Your task to perform on an android device: manage bookmarks in the chrome app Image 0: 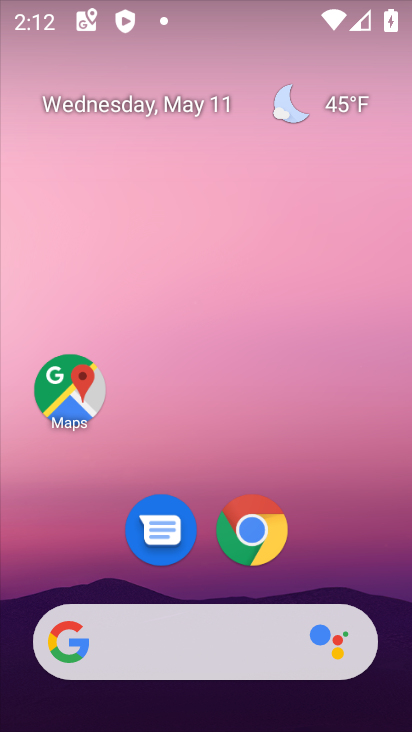
Step 0: drag from (372, 692) to (137, 111)
Your task to perform on an android device: manage bookmarks in the chrome app Image 1: 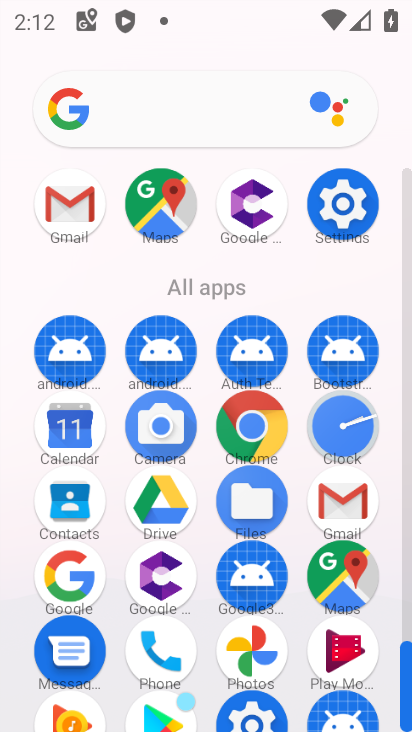
Step 1: click (322, 193)
Your task to perform on an android device: manage bookmarks in the chrome app Image 2: 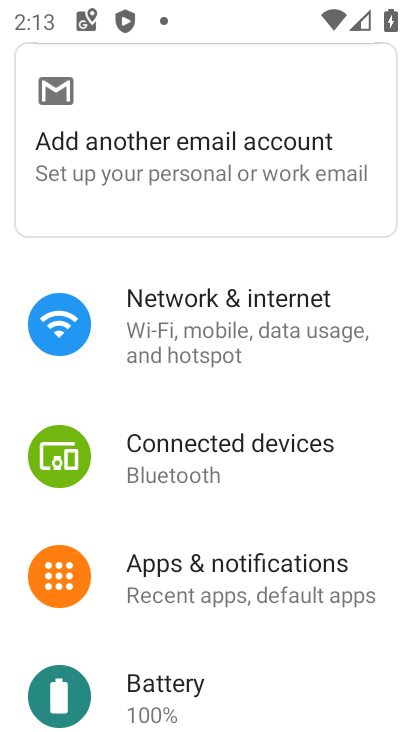
Step 2: press back button
Your task to perform on an android device: manage bookmarks in the chrome app Image 3: 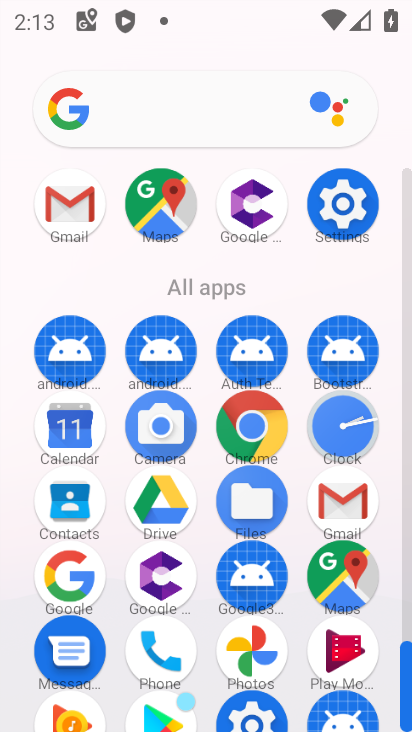
Step 3: click (252, 429)
Your task to perform on an android device: manage bookmarks in the chrome app Image 4: 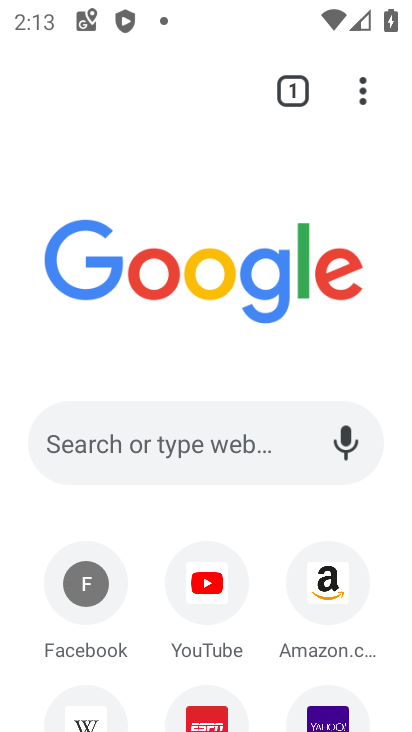
Step 4: drag from (366, 101) to (116, 349)
Your task to perform on an android device: manage bookmarks in the chrome app Image 5: 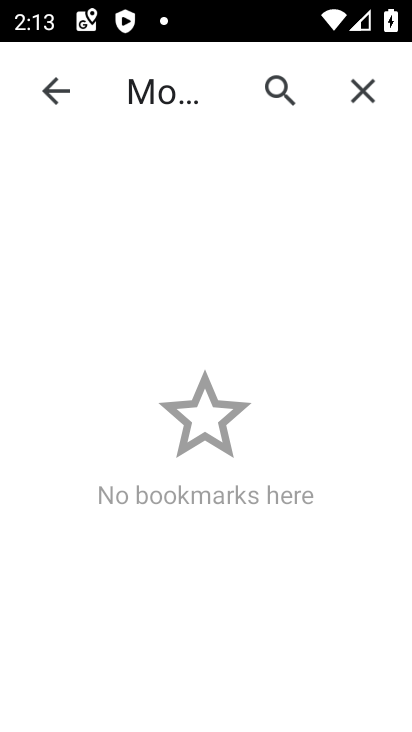
Step 5: click (41, 88)
Your task to perform on an android device: manage bookmarks in the chrome app Image 6: 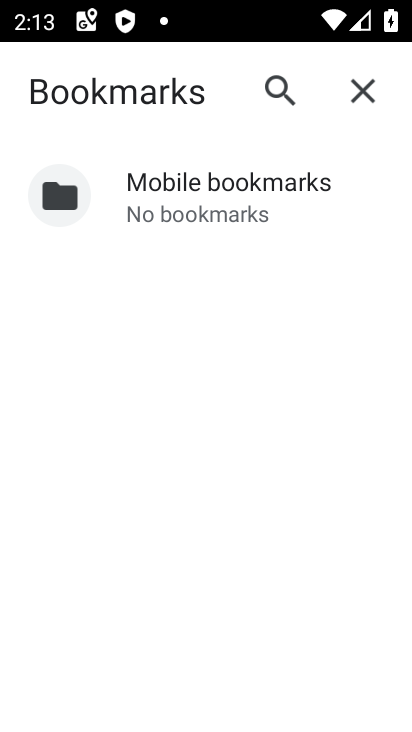
Step 6: task complete